Your task to perform on an android device: toggle airplane mode Image 0: 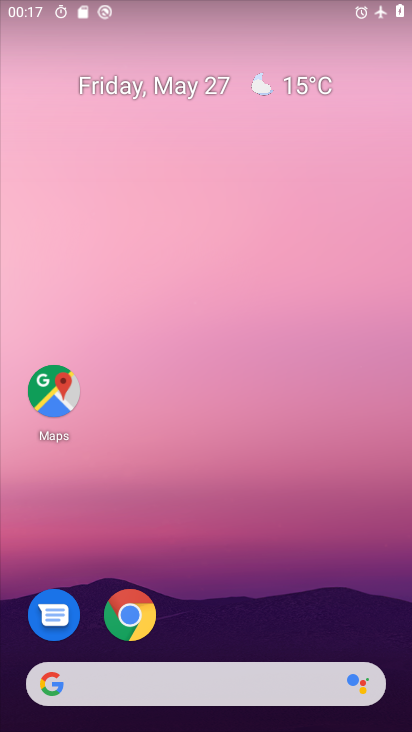
Step 0: drag from (244, 686) to (86, 149)
Your task to perform on an android device: toggle airplane mode Image 1: 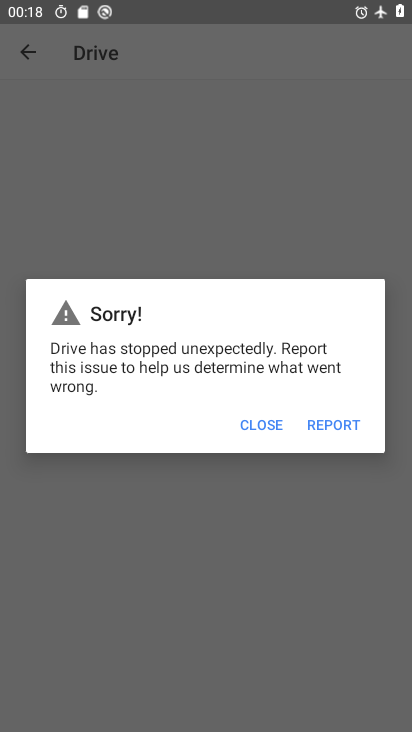
Step 1: click (267, 418)
Your task to perform on an android device: toggle airplane mode Image 2: 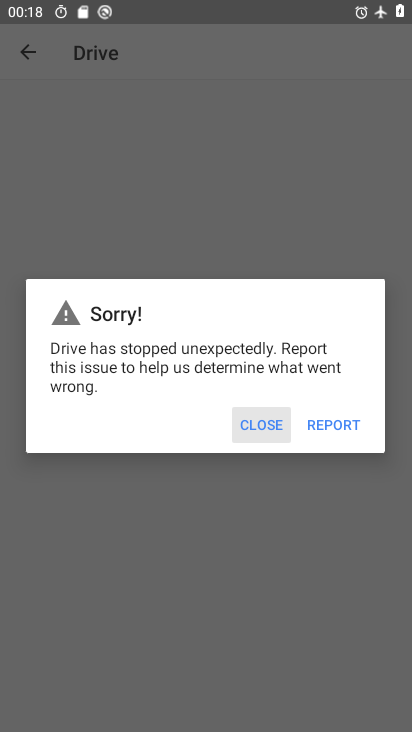
Step 2: press back button
Your task to perform on an android device: toggle airplane mode Image 3: 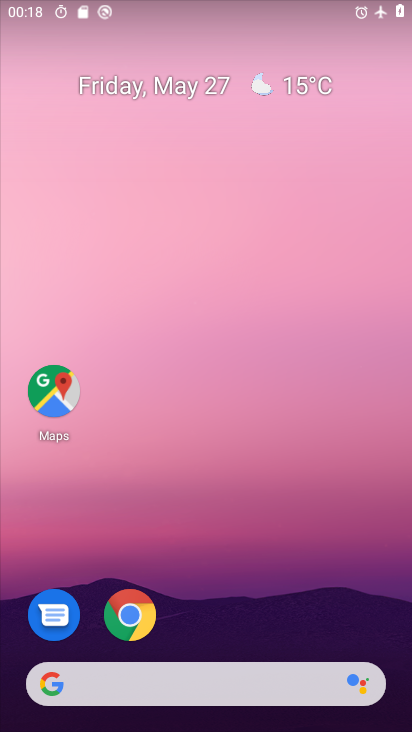
Step 3: drag from (288, 619) to (36, 82)
Your task to perform on an android device: toggle airplane mode Image 4: 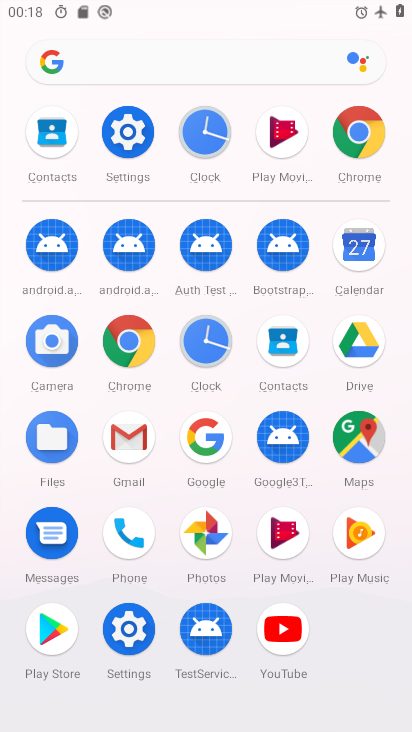
Step 4: click (119, 127)
Your task to perform on an android device: toggle airplane mode Image 5: 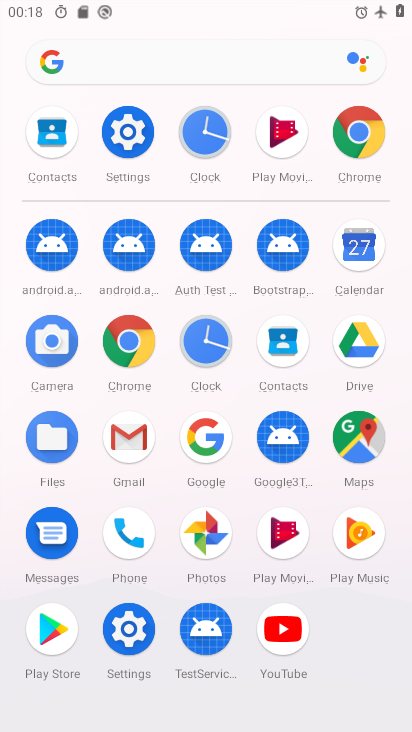
Step 5: click (119, 127)
Your task to perform on an android device: toggle airplane mode Image 6: 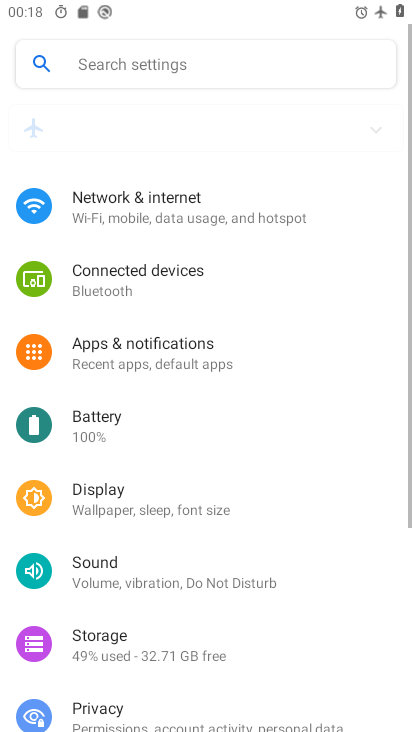
Step 6: click (121, 132)
Your task to perform on an android device: toggle airplane mode Image 7: 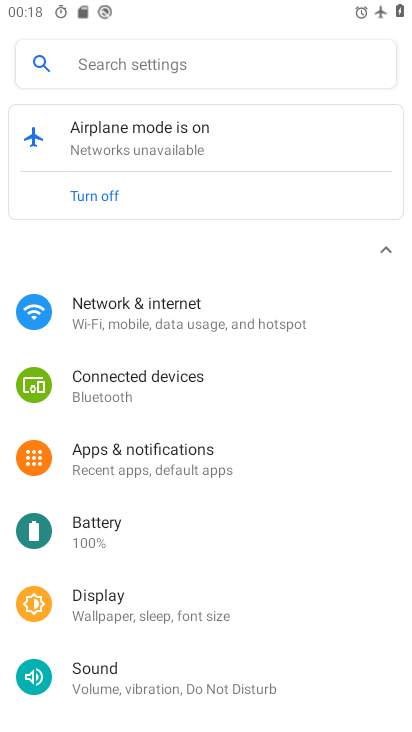
Step 7: click (152, 314)
Your task to perform on an android device: toggle airplane mode Image 8: 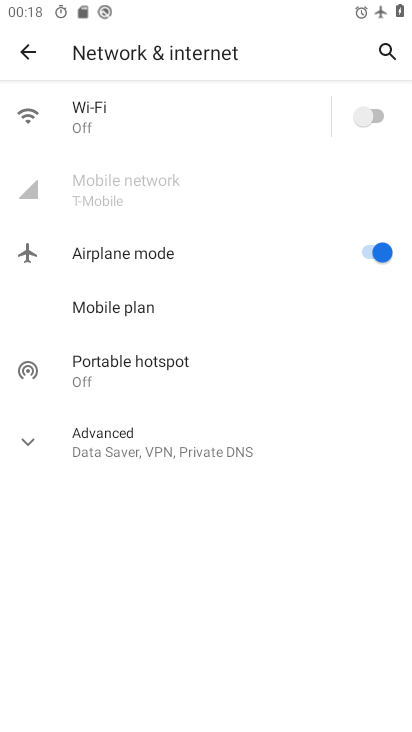
Step 8: click (391, 253)
Your task to perform on an android device: toggle airplane mode Image 9: 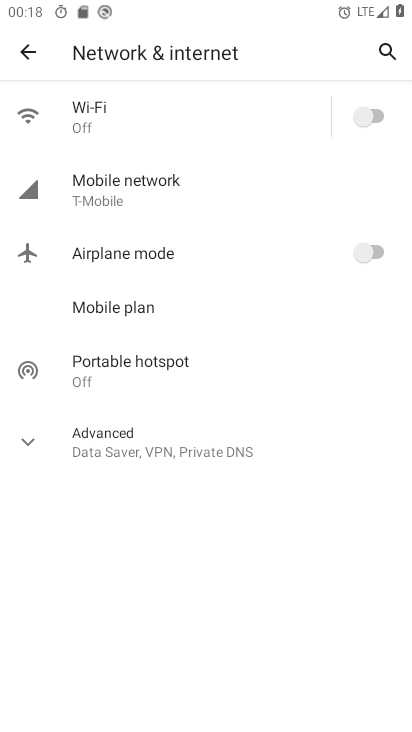
Step 9: task complete